Your task to perform on an android device: Go to Yahoo.com Image 0: 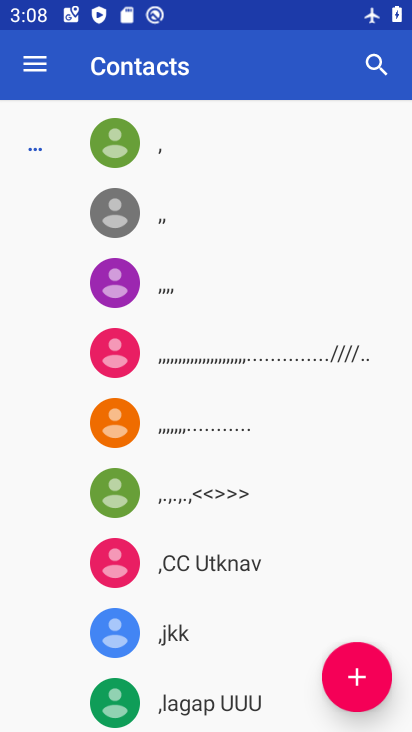
Step 0: press home button
Your task to perform on an android device: Go to Yahoo.com Image 1: 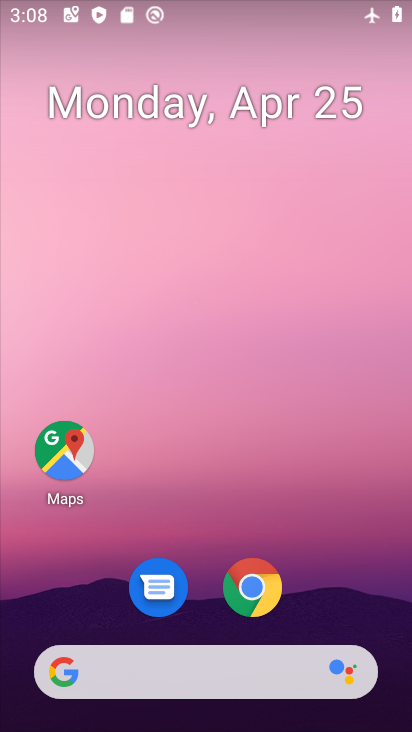
Step 1: click (244, 590)
Your task to perform on an android device: Go to Yahoo.com Image 2: 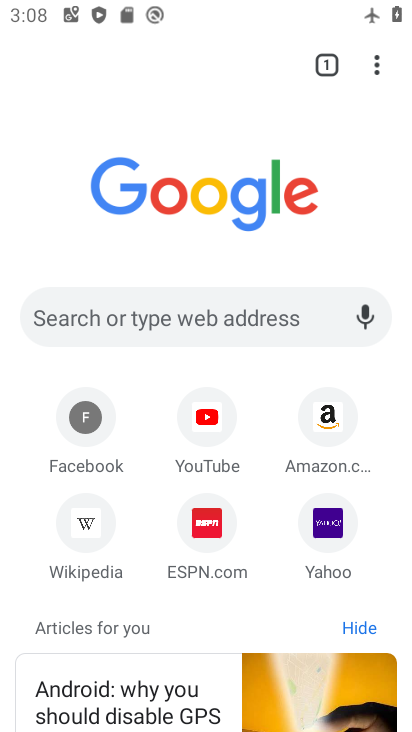
Step 2: click (323, 525)
Your task to perform on an android device: Go to Yahoo.com Image 3: 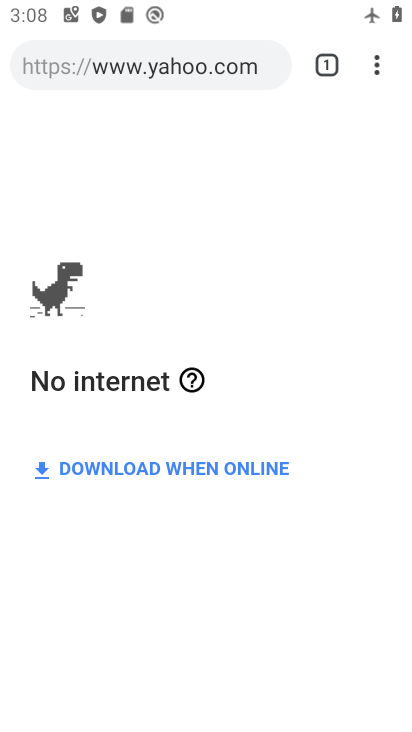
Step 3: task complete